Your task to perform on an android device: turn off smart reply in the gmail app Image 0: 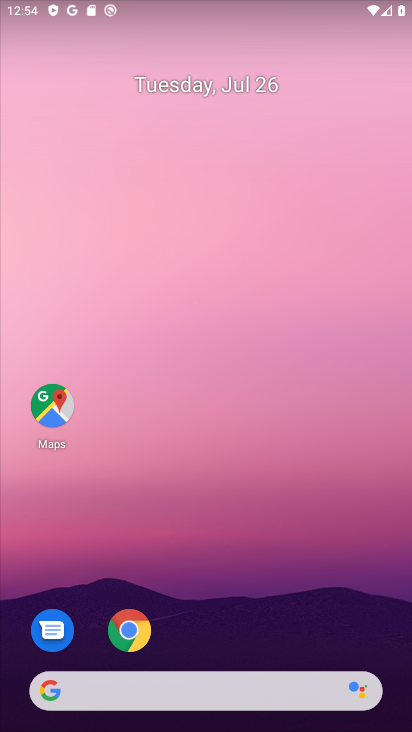
Step 0: click (272, 108)
Your task to perform on an android device: turn off smart reply in the gmail app Image 1: 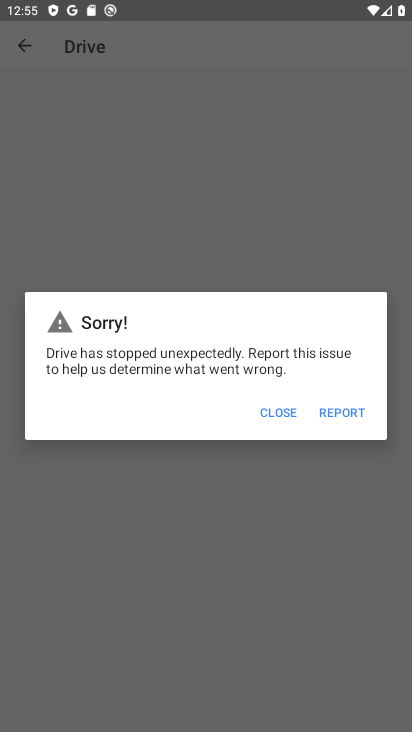
Step 1: press home button
Your task to perform on an android device: turn off smart reply in the gmail app Image 2: 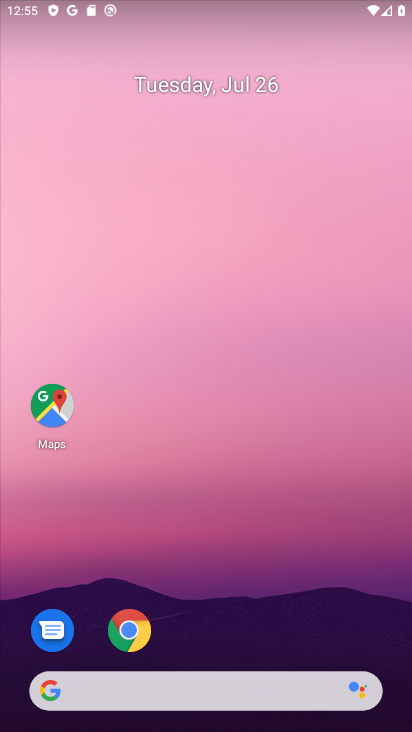
Step 2: drag from (365, 300) to (396, 126)
Your task to perform on an android device: turn off smart reply in the gmail app Image 3: 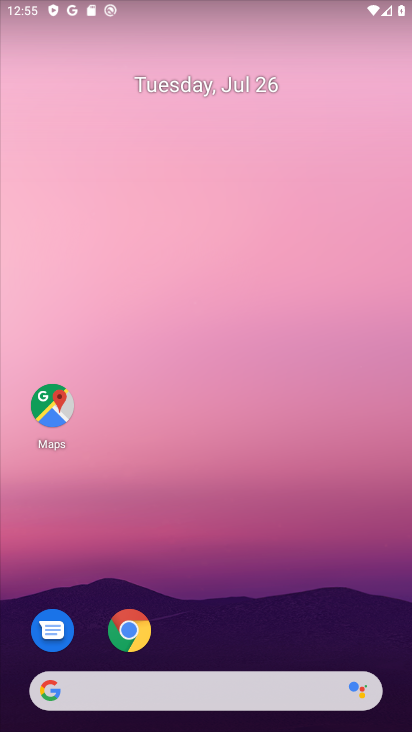
Step 3: drag from (227, 620) to (284, 124)
Your task to perform on an android device: turn off smart reply in the gmail app Image 4: 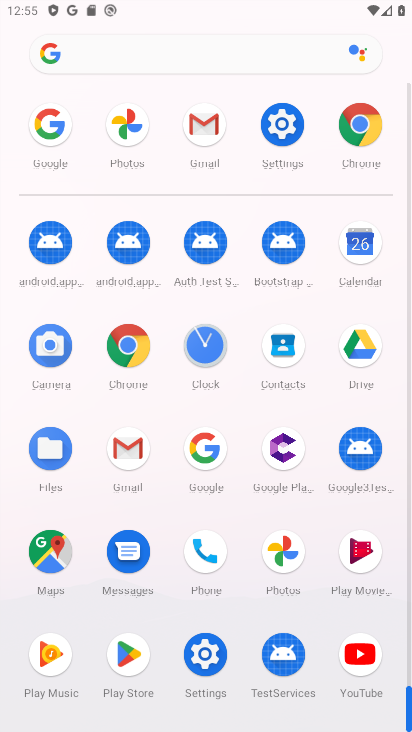
Step 4: click (199, 120)
Your task to perform on an android device: turn off smart reply in the gmail app Image 5: 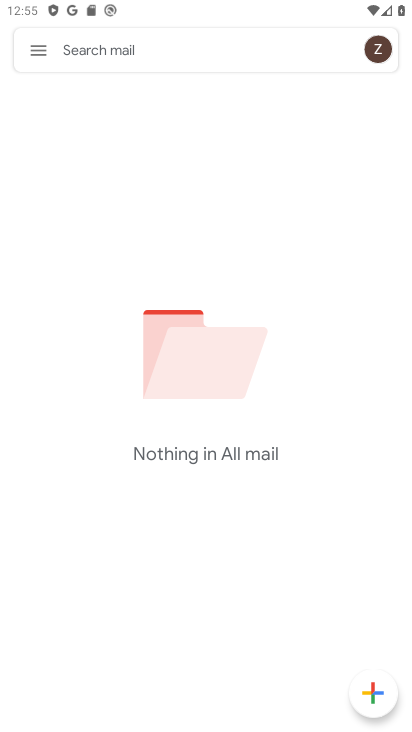
Step 5: click (52, 50)
Your task to perform on an android device: turn off smart reply in the gmail app Image 6: 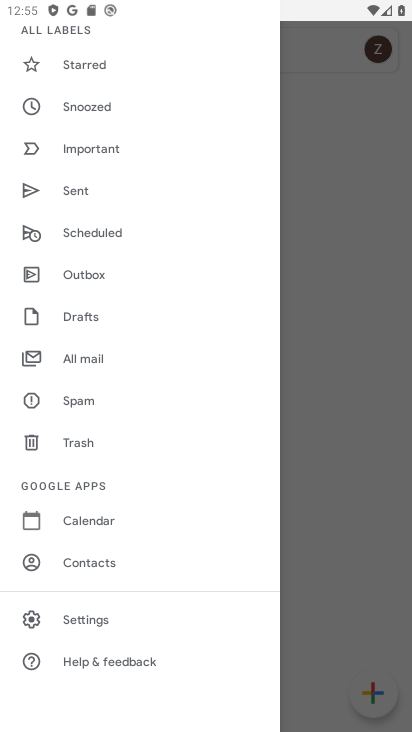
Step 6: drag from (197, 425) to (269, 39)
Your task to perform on an android device: turn off smart reply in the gmail app Image 7: 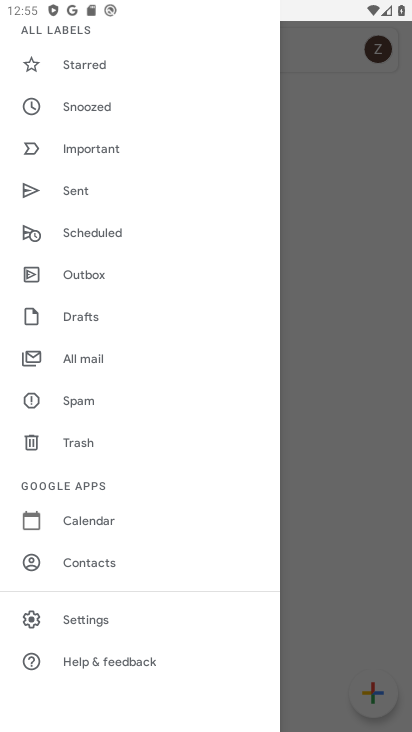
Step 7: click (104, 621)
Your task to perform on an android device: turn off smart reply in the gmail app Image 8: 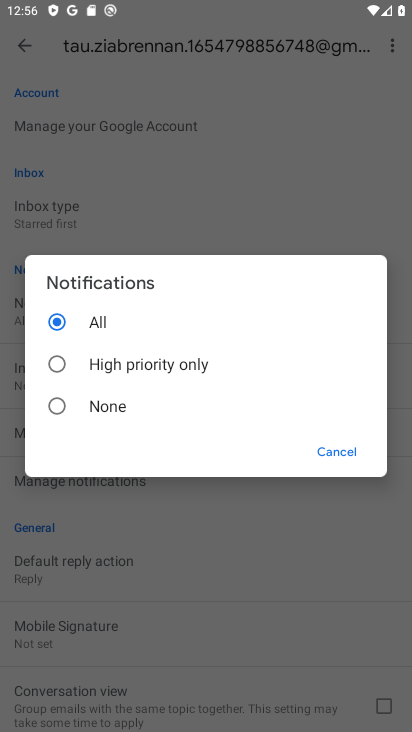
Step 8: click (332, 469)
Your task to perform on an android device: turn off smart reply in the gmail app Image 9: 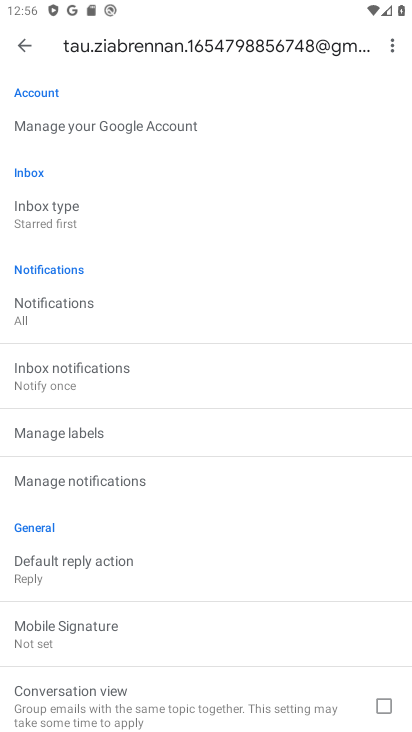
Step 9: drag from (185, 562) to (252, 276)
Your task to perform on an android device: turn off smart reply in the gmail app Image 10: 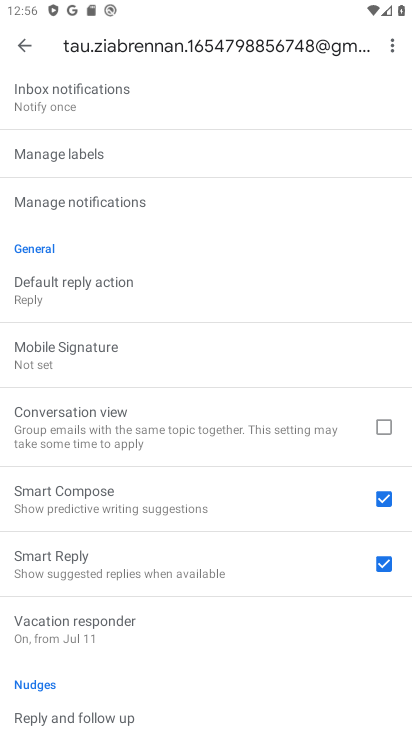
Step 10: click (122, 498)
Your task to perform on an android device: turn off smart reply in the gmail app Image 11: 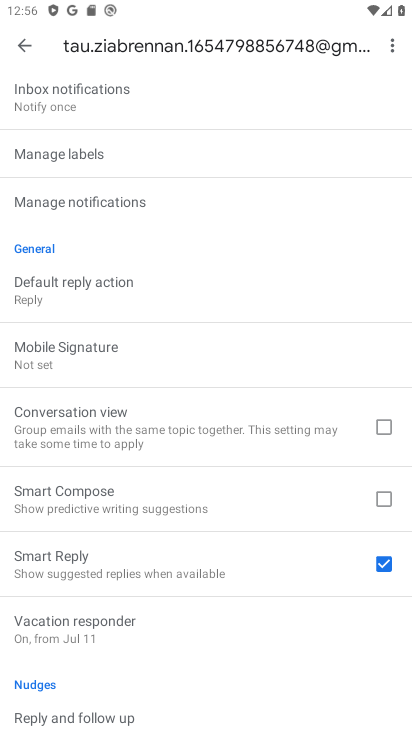
Step 11: task complete